Your task to perform on an android device: Open Chrome and go to settings Image 0: 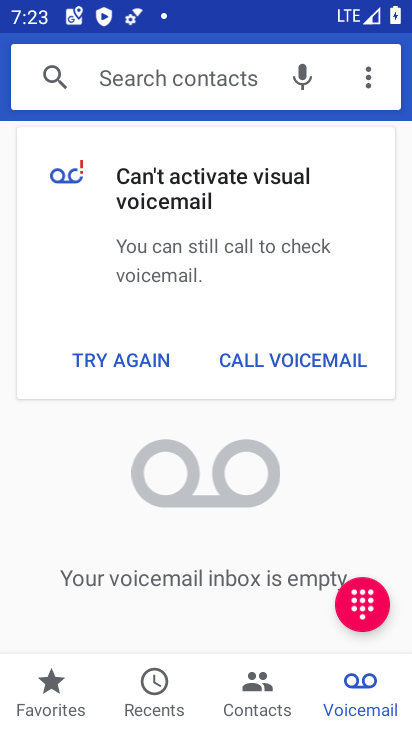
Step 0: press home button
Your task to perform on an android device: Open Chrome and go to settings Image 1: 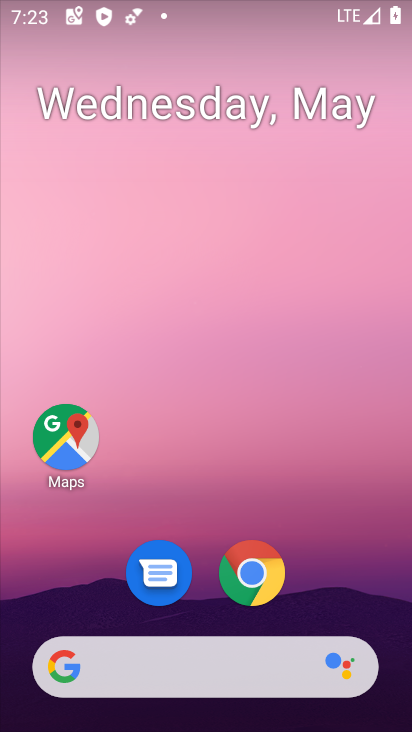
Step 1: click (251, 577)
Your task to perform on an android device: Open Chrome and go to settings Image 2: 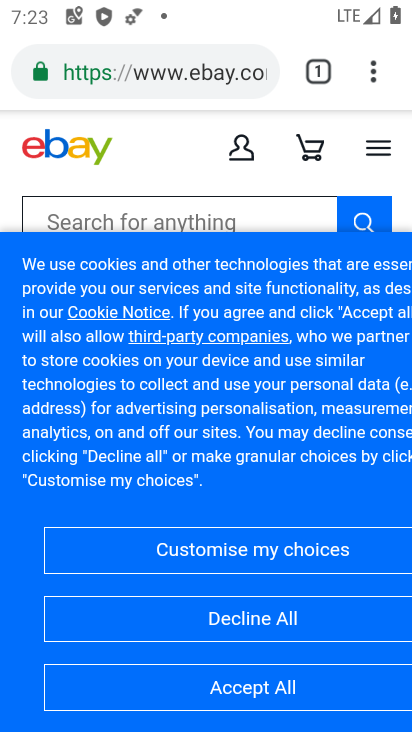
Step 2: click (375, 70)
Your task to perform on an android device: Open Chrome and go to settings Image 3: 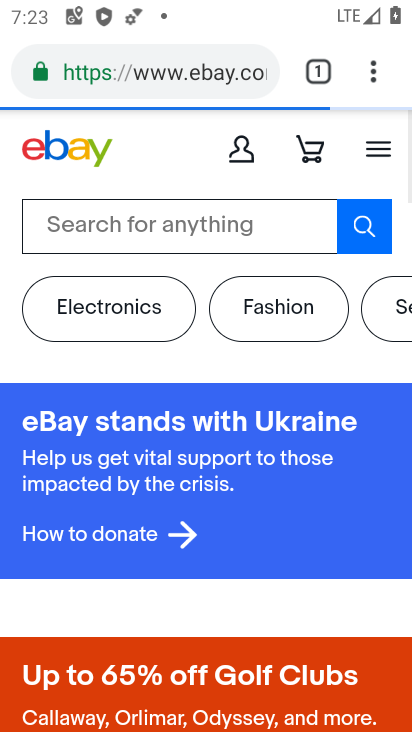
Step 3: click (375, 70)
Your task to perform on an android device: Open Chrome and go to settings Image 4: 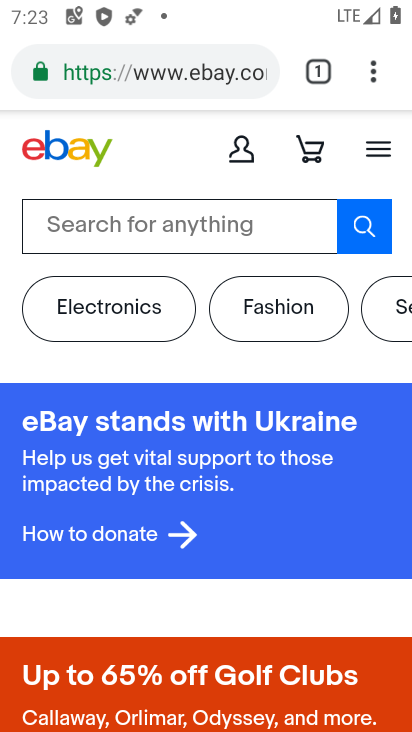
Step 4: click (373, 71)
Your task to perform on an android device: Open Chrome and go to settings Image 5: 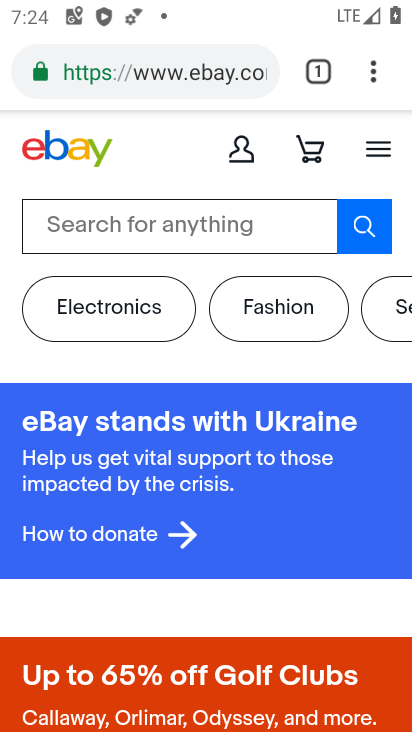
Step 5: click (376, 69)
Your task to perform on an android device: Open Chrome and go to settings Image 6: 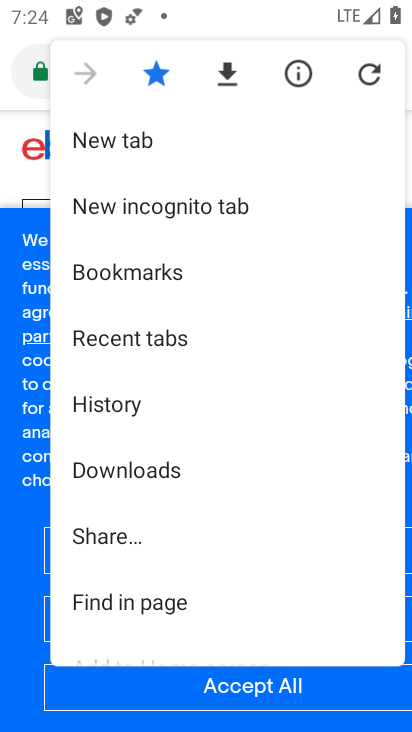
Step 6: drag from (198, 594) to (194, 343)
Your task to perform on an android device: Open Chrome and go to settings Image 7: 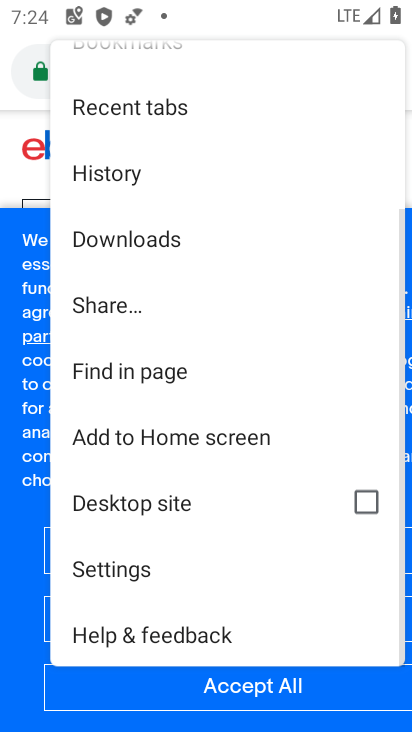
Step 7: click (110, 574)
Your task to perform on an android device: Open Chrome and go to settings Image 8: 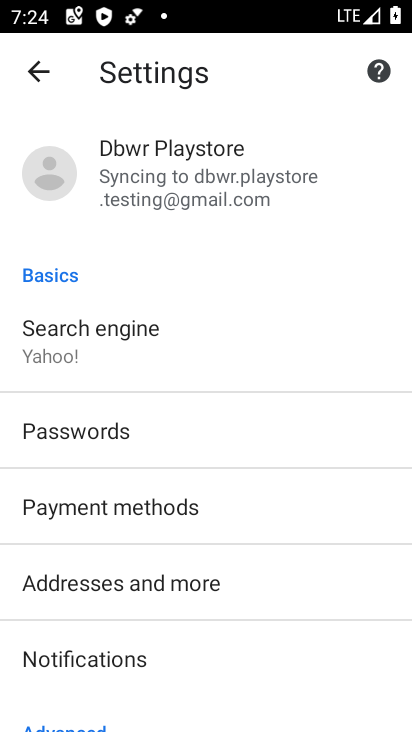
Step 8: task complete